Your task to perform on an android device: Go to Google maps Image 0: 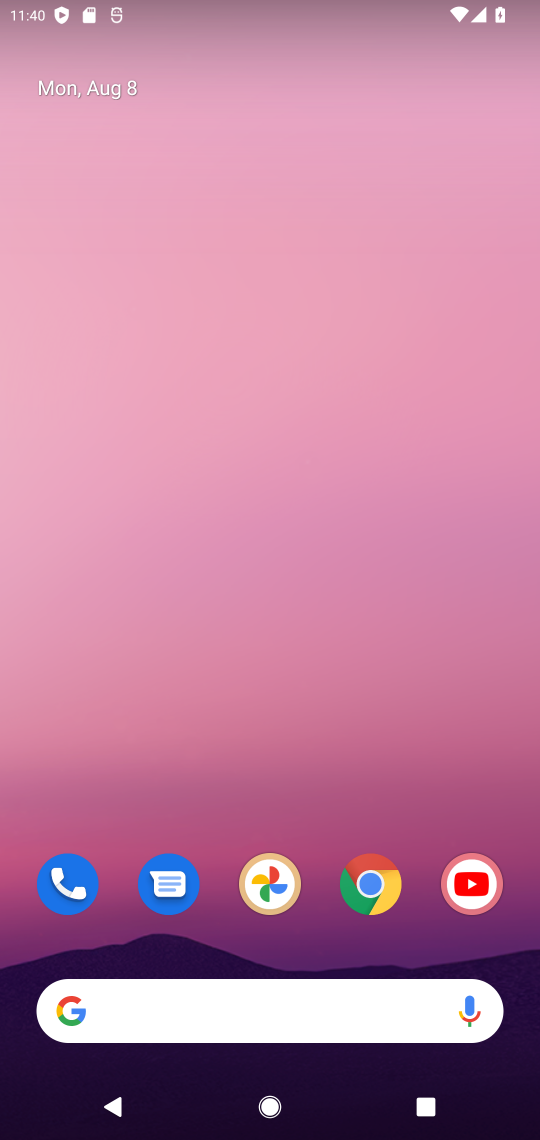
Step 0: drag from (195, 770) to (391, 164)
Your task to perform on an android device: Go to Google maps Image 1: 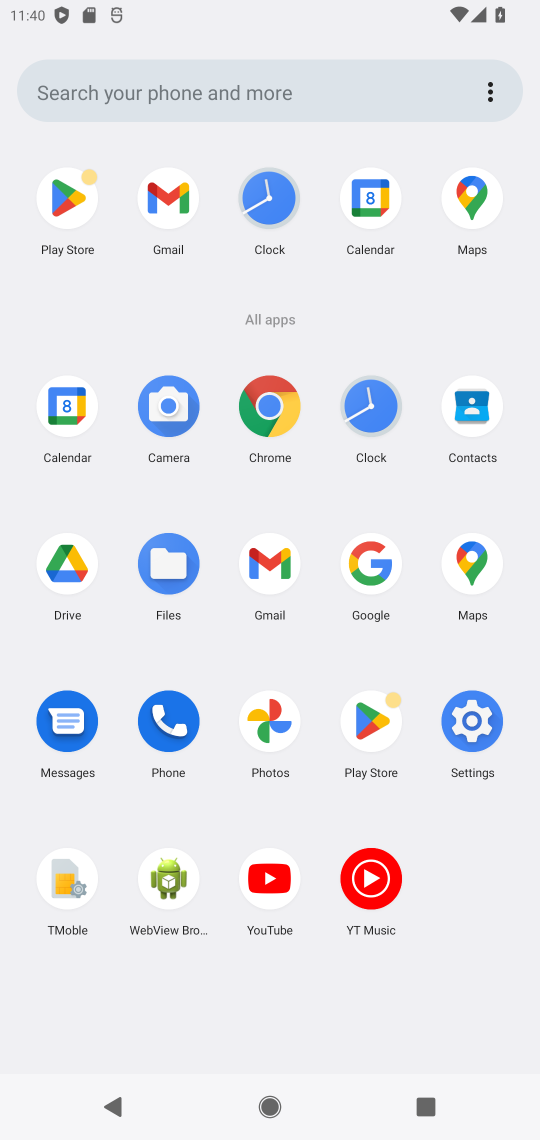
Step 1: click (489, 559)
Your task to perform on an android device: Go to Google maps Image 2: 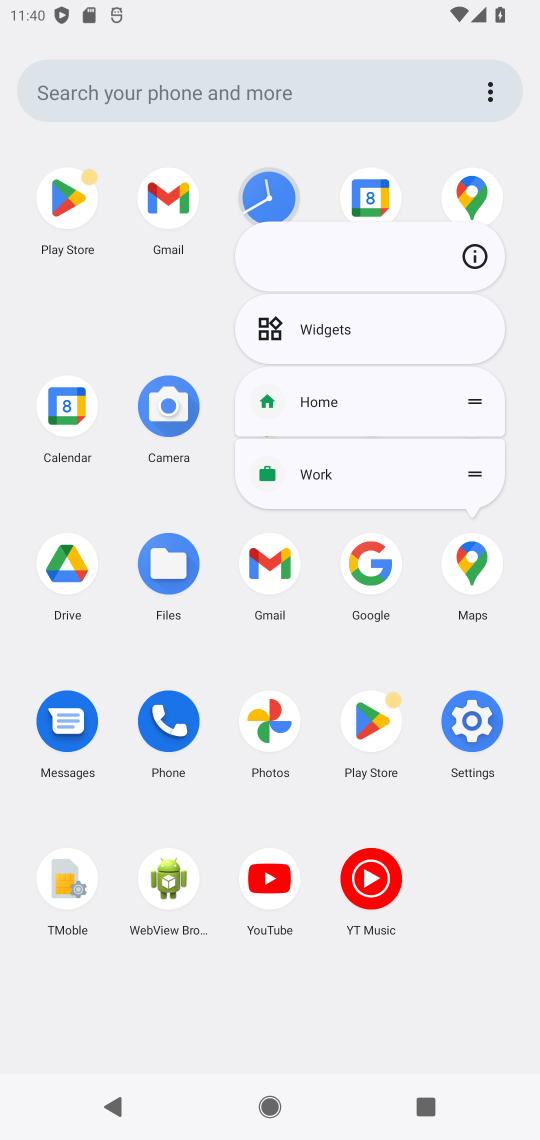
Step 2: click (489, 559)
Your task to perform on an android device: Go to Google maps Image 3: 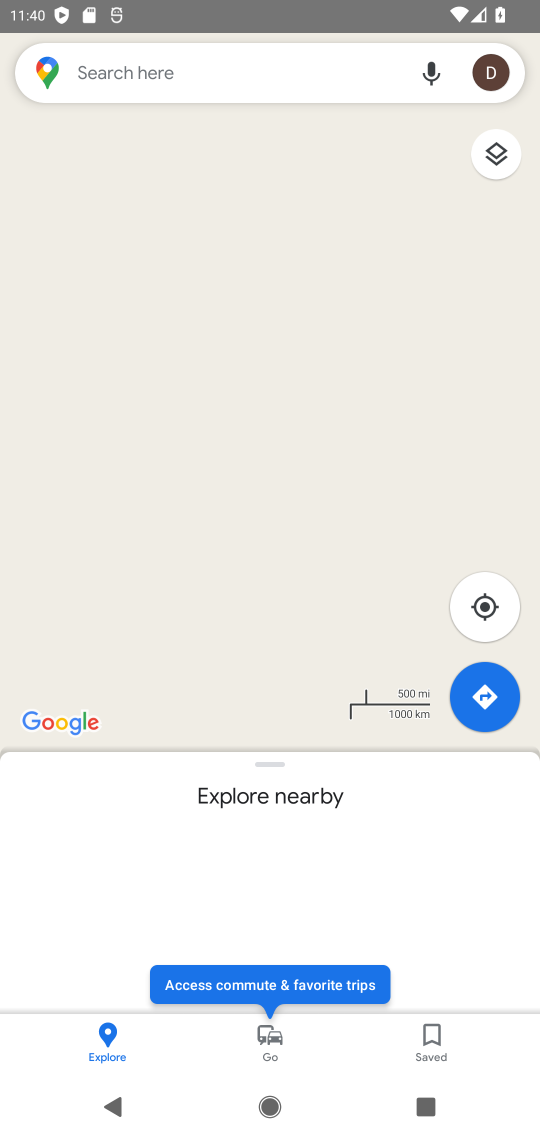
Step 3: task complete